Your task to perform on an android device: Show me popular games on the Play Store Image 0: 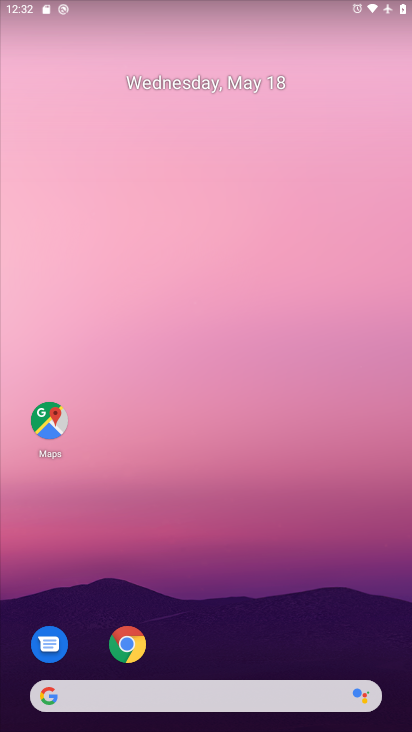
Step 0: press home button
Your task to perform on an android device: Show me popular games on the Play Store Image 1: 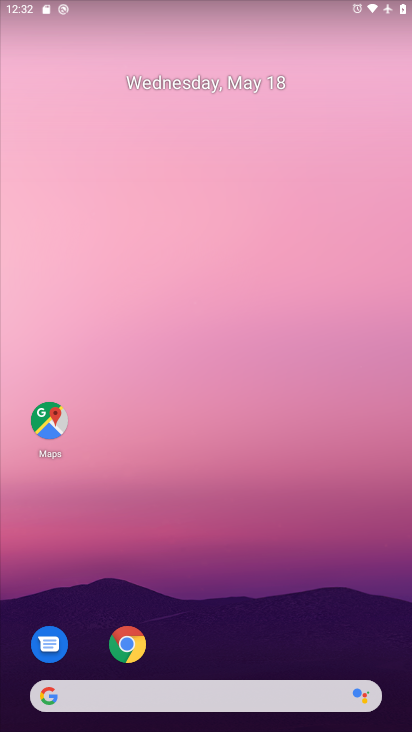
Step 1: drag from (261, 658) to (304, 46)
Your task to perform on an android device: Show me popular games on the Play Store Image 2: 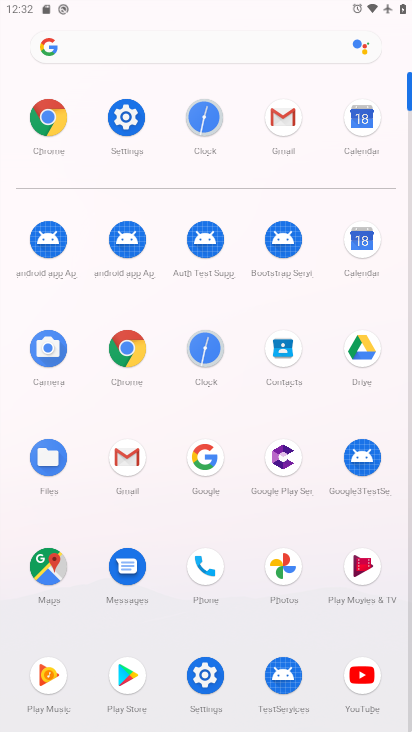
Step 2: click (124, 675)
Your task to perform on an android device: Show me popular games on the Play Store Image 3: 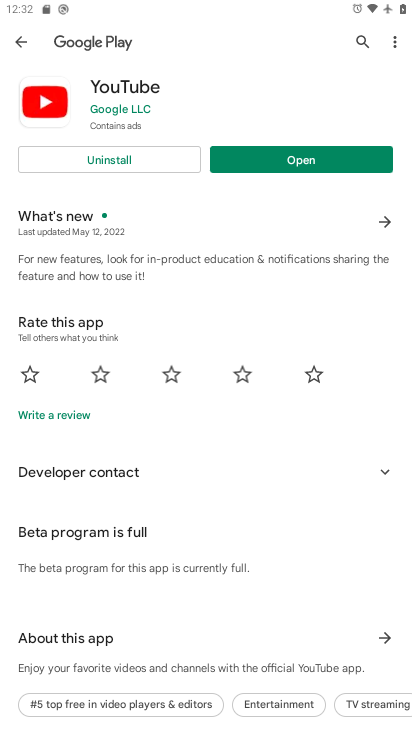
Step 3: click (24, 44)
Your task to perform on an android device: Show me popular games on the Play Store Image 4: 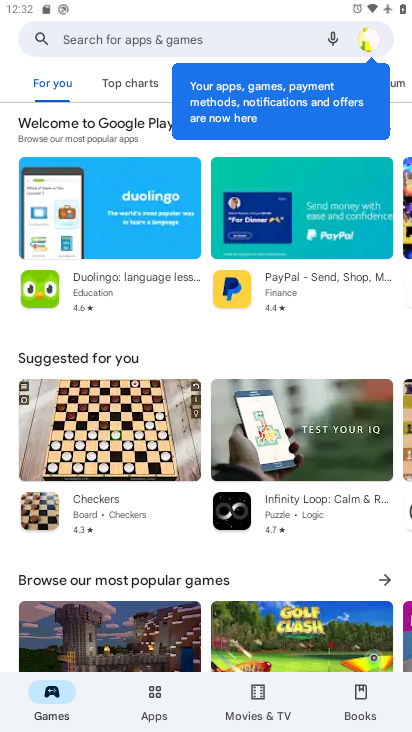
Step 4: drag from (206, 564) to (221, 395)
Your task to perform on an android device: Show me popular games on the Play Store Image 5: 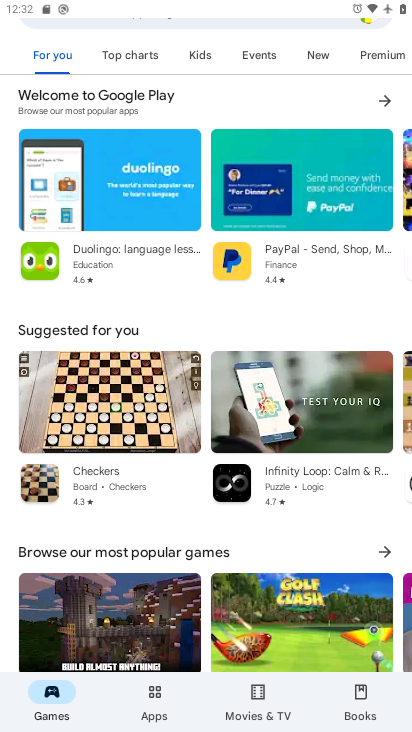
Step 5: drag from (223, 336) to (223, 290)
Your task to perform on an android device: Show me popular games on the Play Store Image 6: 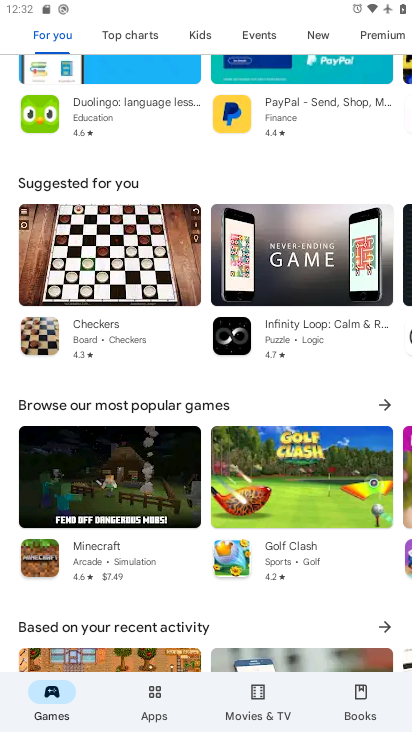
Step 6: click (379, 397)
Your task to perform on an android device: Show me popular games on the Play Store Image 7: 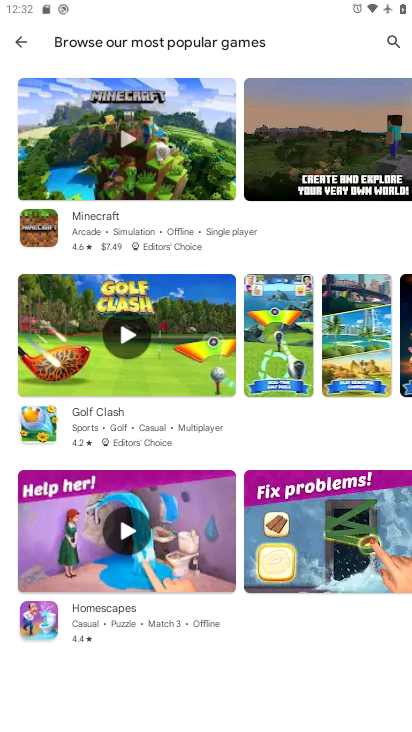
Step 7: task complete